Your task to perform on an android device: turn off location Image 0: 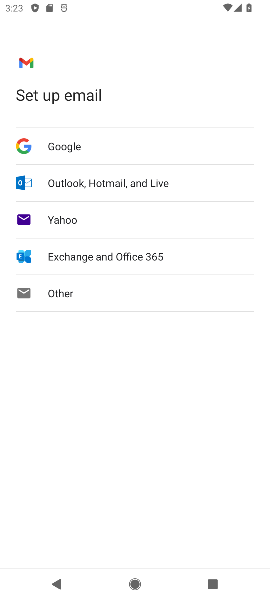
Step 0: press home button
Your task to perform on an android device: turn off location Image 1: 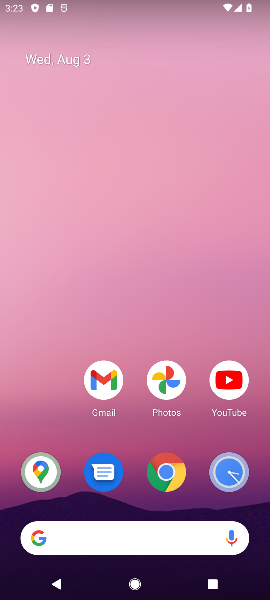
Step 1: drag from (206, 501) to (63, 25)
Your task to perform on an android device: turn off location Image 2: 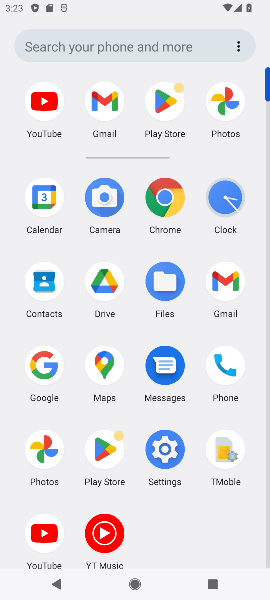
Step 2: click (158, 455)
Your task to perform on an android device: turn off location Image 3: 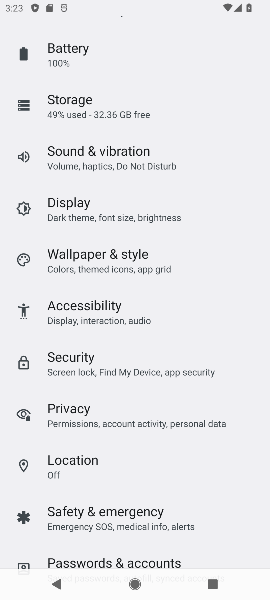
Step 3: click (65, 472)
Your task to perform on an android device: turn off location Image 4: 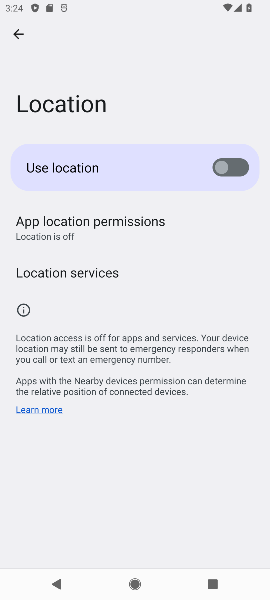
Step 4: task complete